Your task to perform on an android device: turn off data saver in the chrome app Image 0: 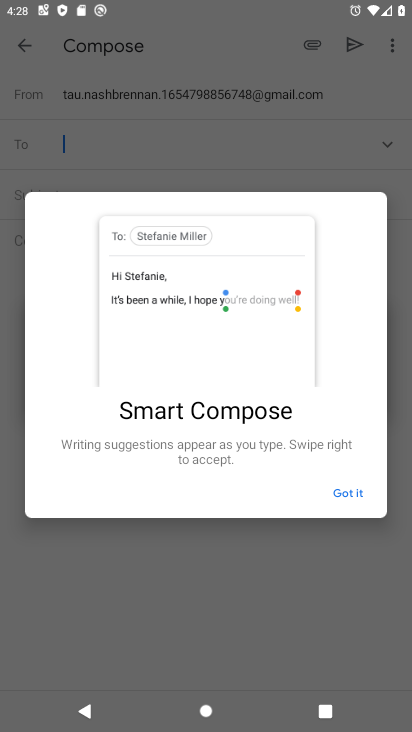
Step 0: press home button
Your task to perform on an android device: turn off data saver in the chrome app Image 1: 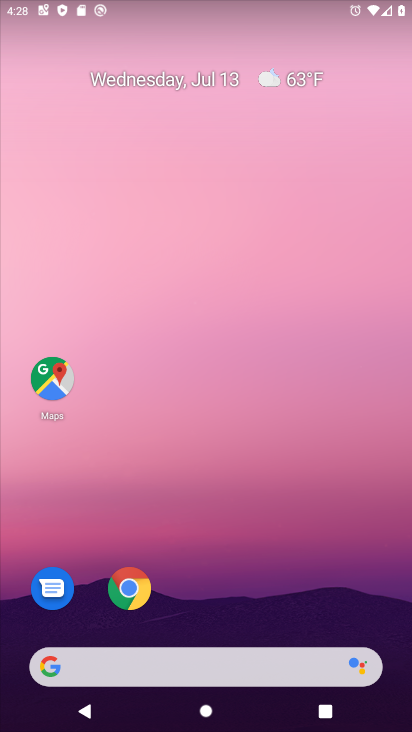
Step 1: click (130, 591)
Your task to perform on an android device: turn off data saver in the chrome app Image 2: 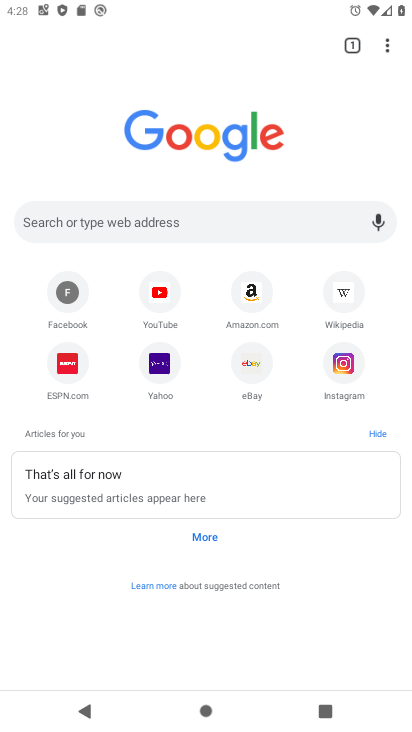
Step 2: click (386, 44)
Your task to perform on an android device: turn off data saver in the chrome app Image 3: 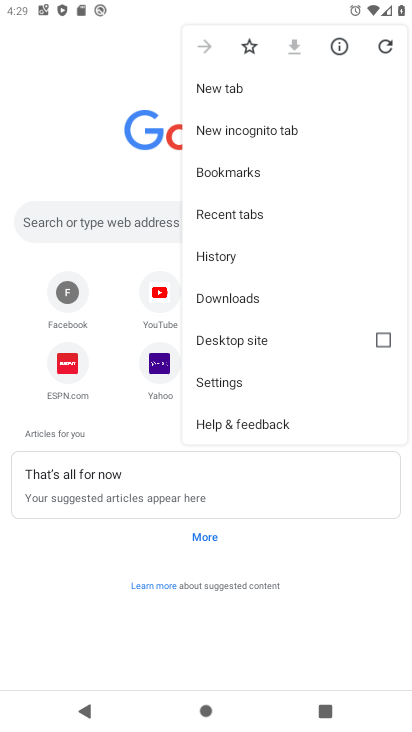
Step 3: click (227, 387)
Your task to perform on an android device: turn off data saver in the chrome app Image 4: 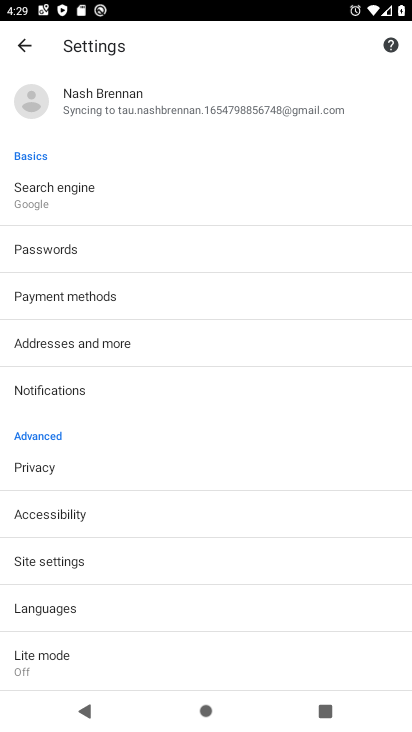
Step 4: click (52, 652)
Your task to perform on an android device: turn off data saver in the chrome app Image 5: 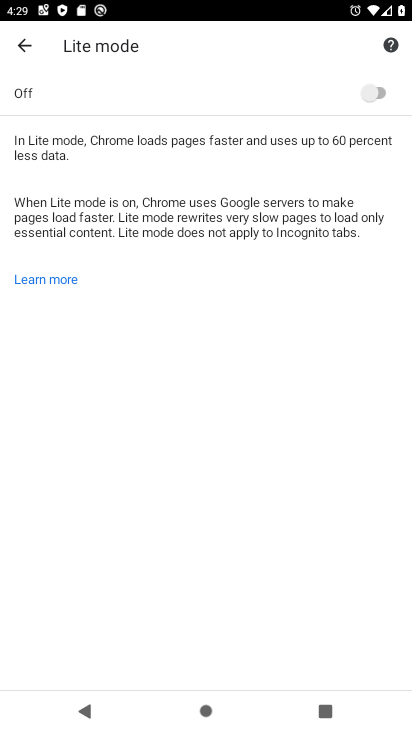
Step 5: task complete